Your task to perform on an android device: Check the news Image 0: 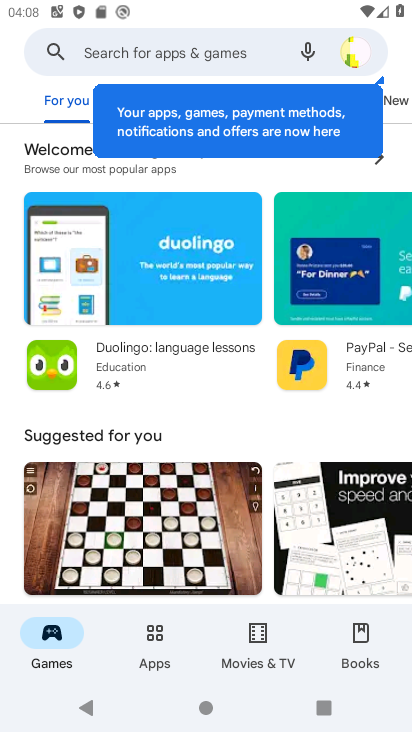
Step 0: press home button
Your task to perform on an android device: Check the news Image 1: 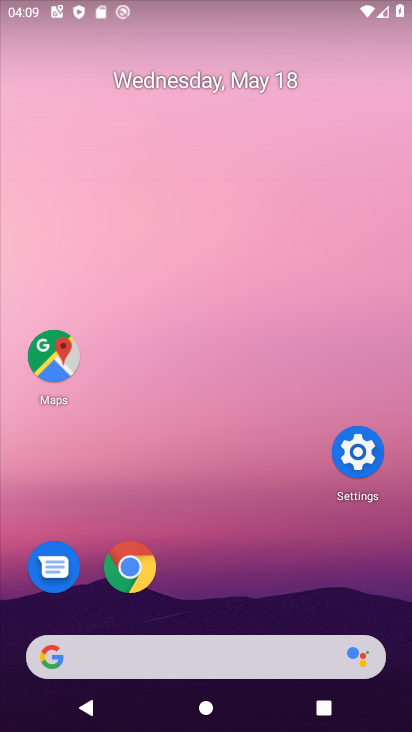
Step 1: click (145, 564)
Your task to perform on an android device: Check the news Image 2: 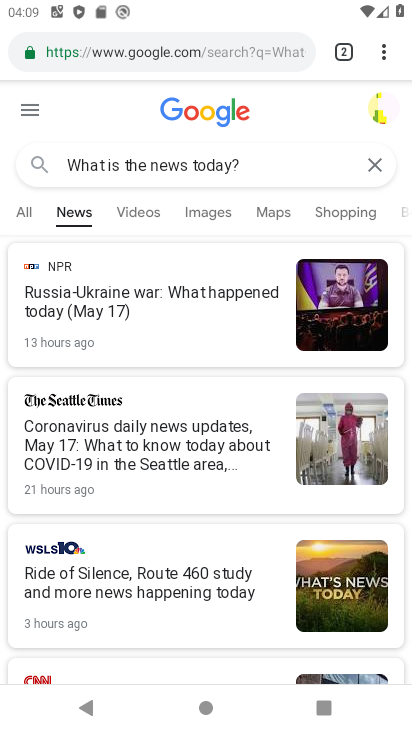
Step 2: click (373, 166)
Your task to perform on an android device: Check the news Image 3: 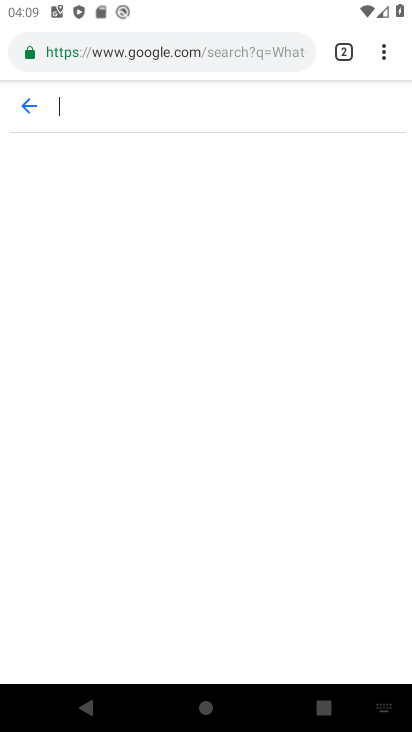
Step 3: click (224, 47)
Your task to perform on an android device: Check the news Image 4: 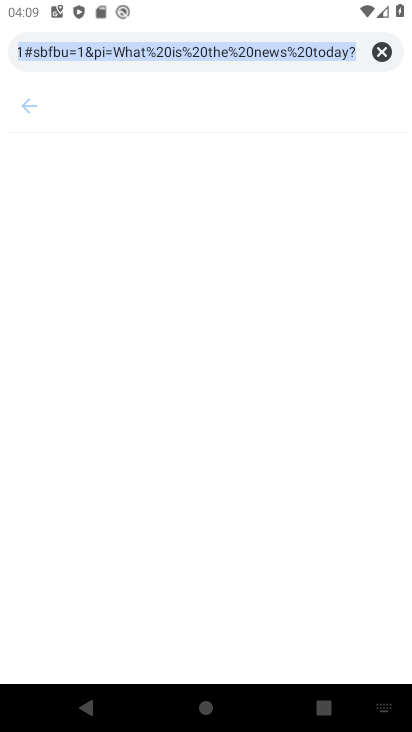
Step 4: click (386, 55)
Your task to perform on an android device: Check the news Image 5: 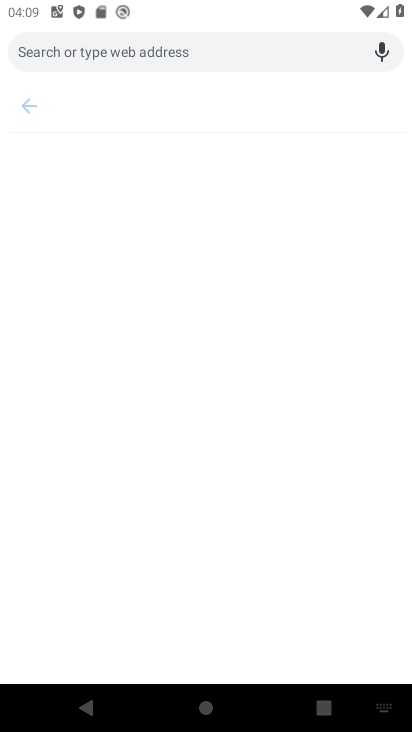
Step 5: type "Check the news"
Your task to perform on an android device: Check the news Image 6: 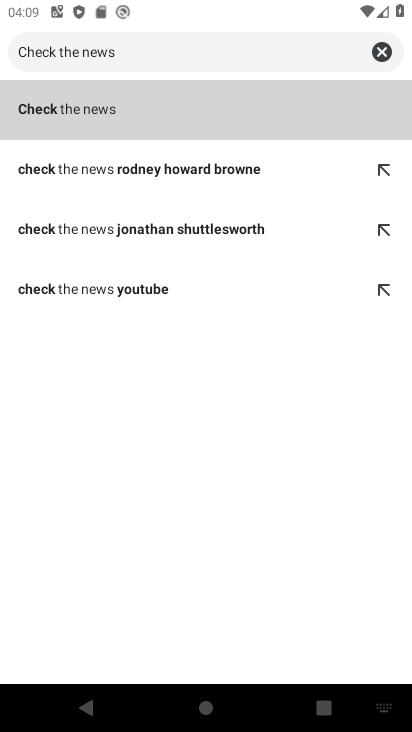
Step 6: click (72, 108)
Your task to perform on an android device: Check the news Image 7: 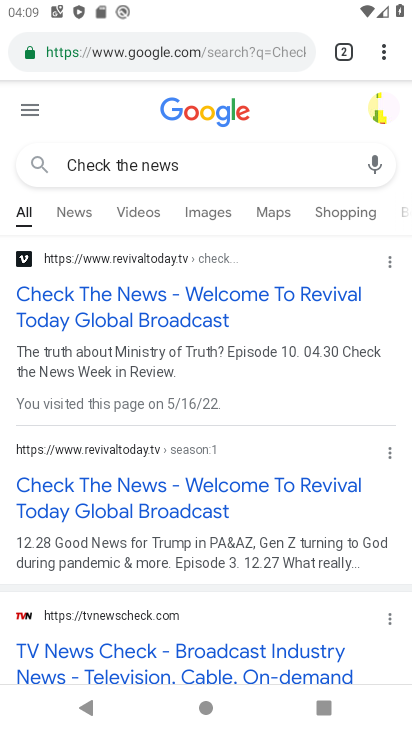
Step 7: task complete